Your task to perform on an android device: toggle show notifications on the lock screen Image 0: 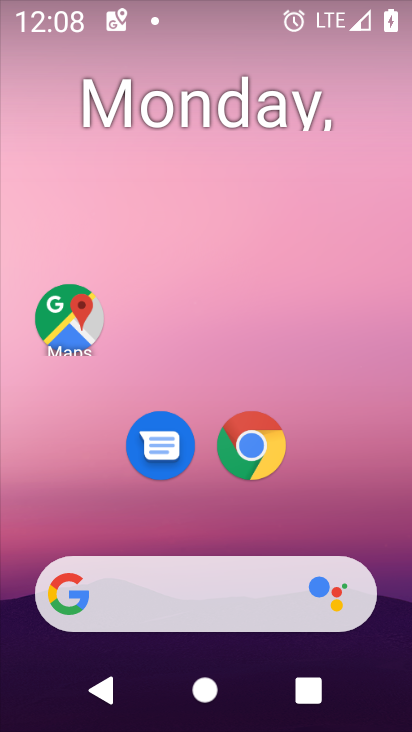
Step 0: drag from (216, 528) to (274, 148)
Your task to perform on an android device: toggle show notifications on the lock screen Image 1: 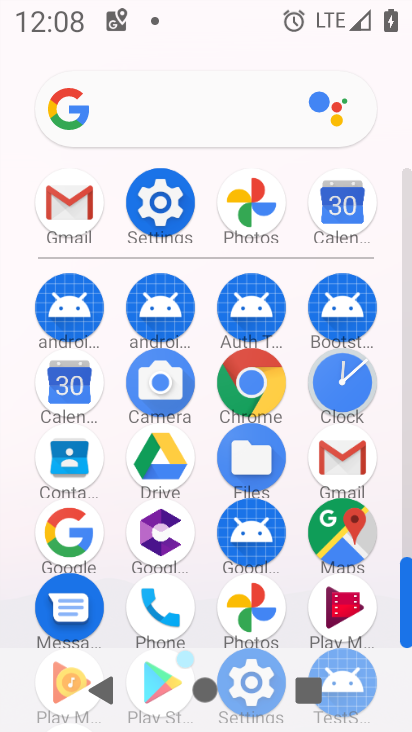
Step 1: click (160, 187)
Your task to perform on an android device: toggle show notifications on the lock screen Image 2: 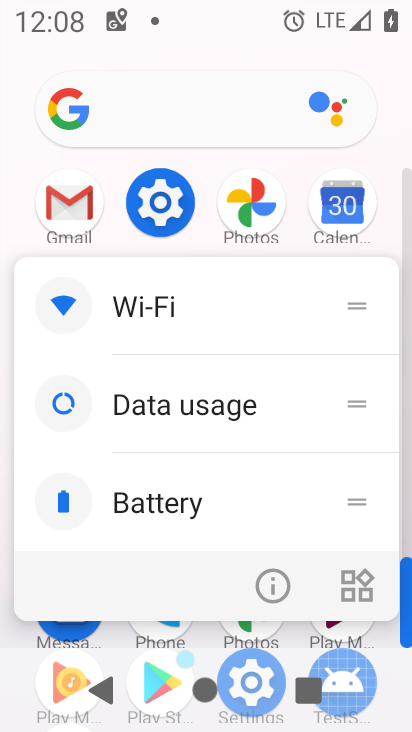
Step 2: click (268, 593)
Your task to perform on an android device: toggle show notifications on the lock screen Image 3: 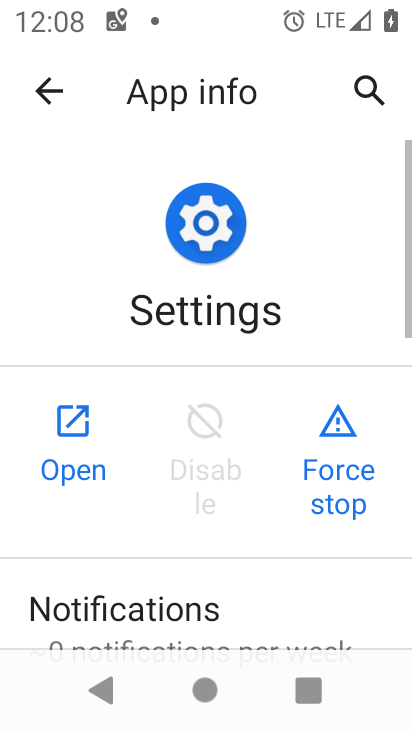
Step 3: click (79, 433)
Your task to perform on an android device: toggle show notifications on the lock screen Image 4: 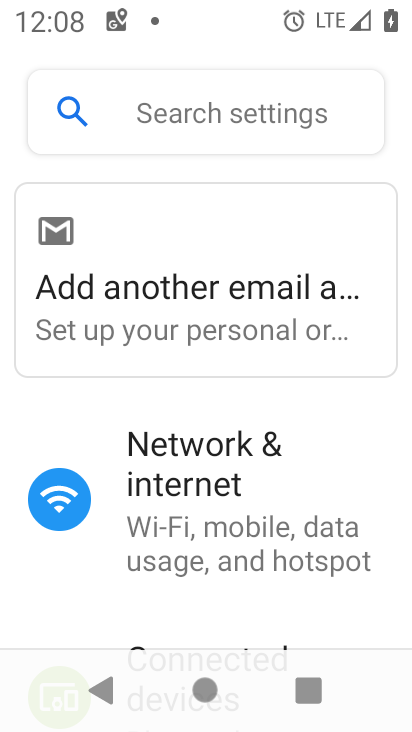
Step 4: drag from (237, 583) to (351, 144)
Your task to perform on an android device: toggle show notifications on the lock screen Image 5: 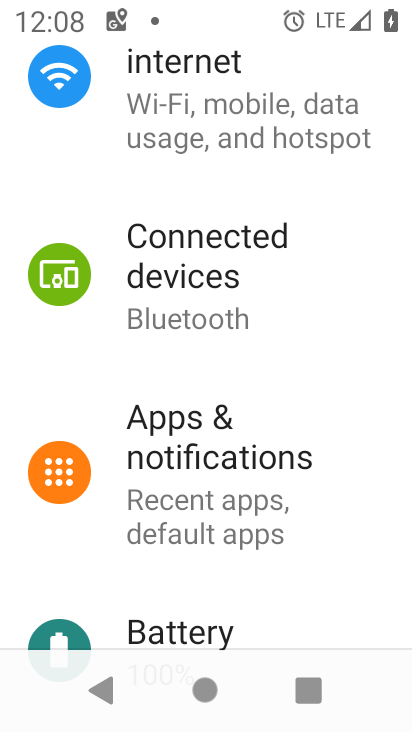
Step 5: click (201, 448)
Your task to perform on an android device: toggle show notifications on the lock screen Image 6: 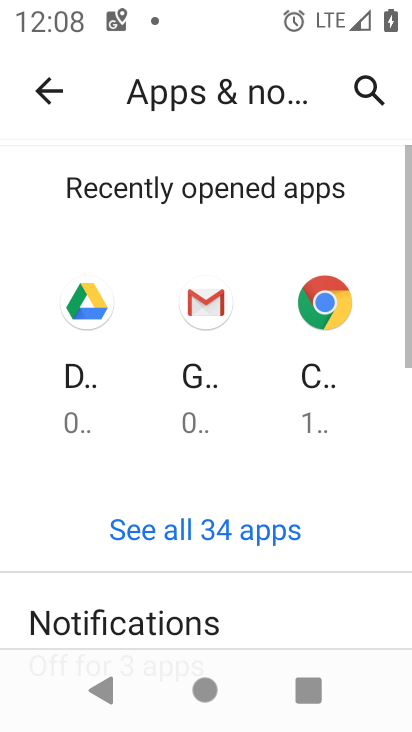
Step 6: drag from (185, 571) to (237, 183)
Your task to perform on an android device: toggle show notifications on the lock screen Image 7: 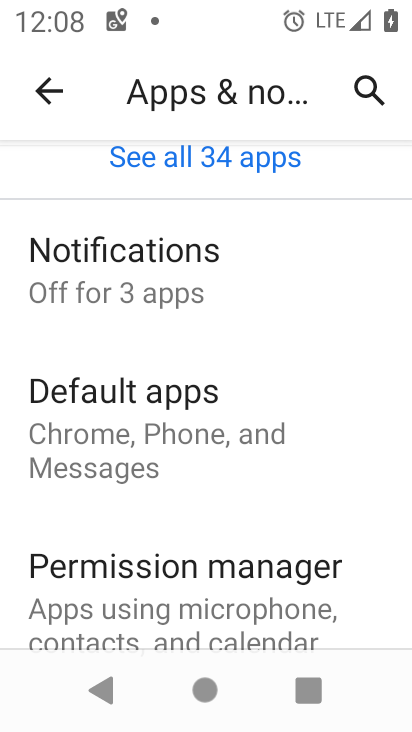
Step 7: click (168, 281)
Your task to perform on an android device: toggle show notifications on the lock screen Image 8: 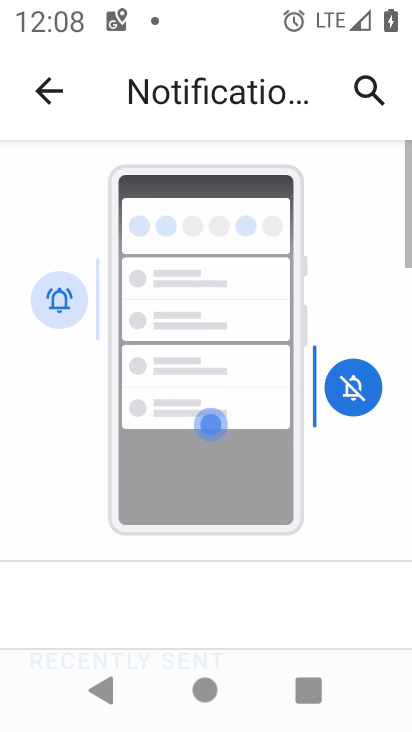
Step 8: drag from (227, 513) to (276, 189)
Your task to perform on an android device: toggle show notifications on the lock screen Image 9: 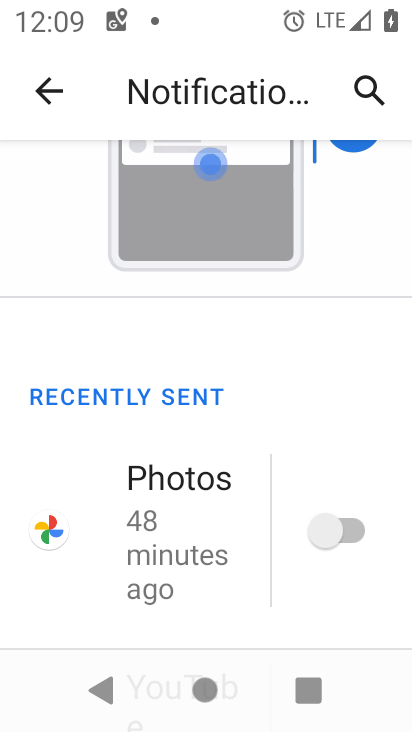
Step 9: drag from (178, 555) to (267, 86)
Your task to perform on an android device: toggle show notifications on the lock screen Image 10: 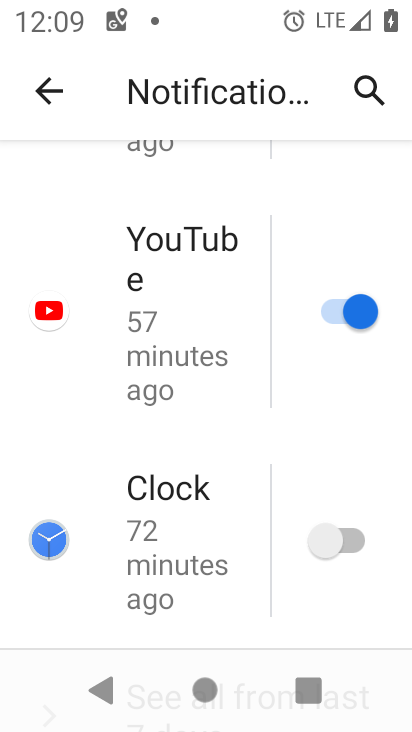
Step 10: drag from (225, 508) to (316, 78)
Your task to perform on an android device: toggle show notifications on the lock screen Image 11: 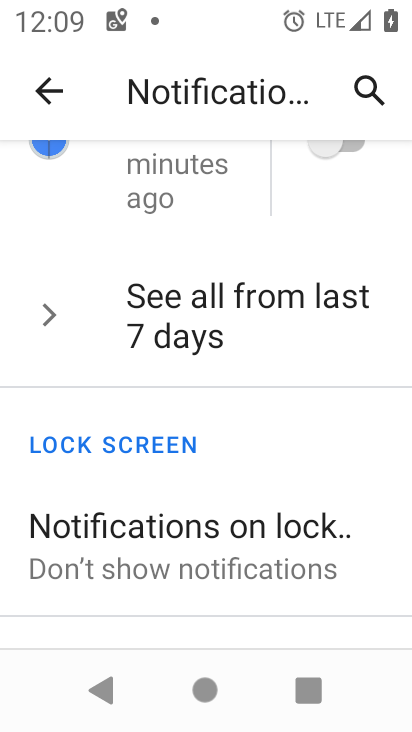
Step 11: drag from (206, 525) to (296, 140)
Your task to perform on an android device: toggle show notifications on the lock screen Image 12: 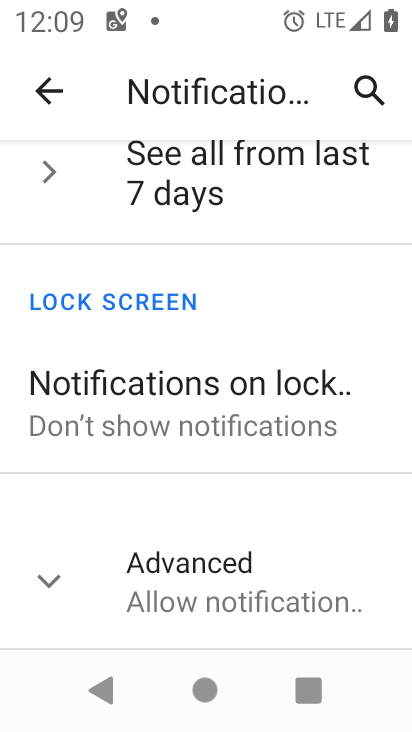
Step 12: click (174, 384)
Your task to perform on an android device: toggle show notifications on the lock screen Image 13: 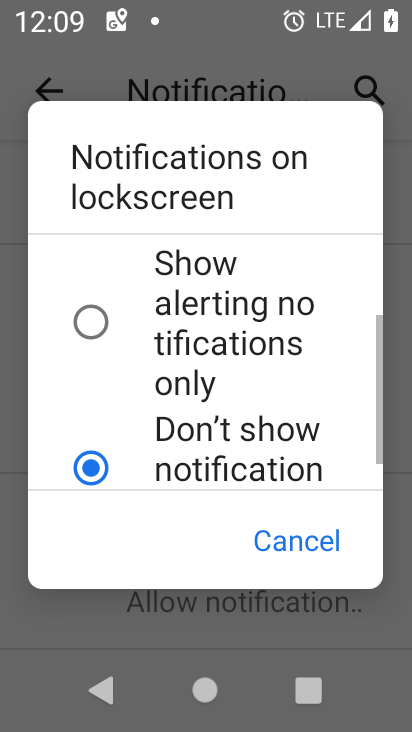
Step 13: click (153, 307)
Your task to perform on an android device: toggle show notifications on the lock screen Image 14: 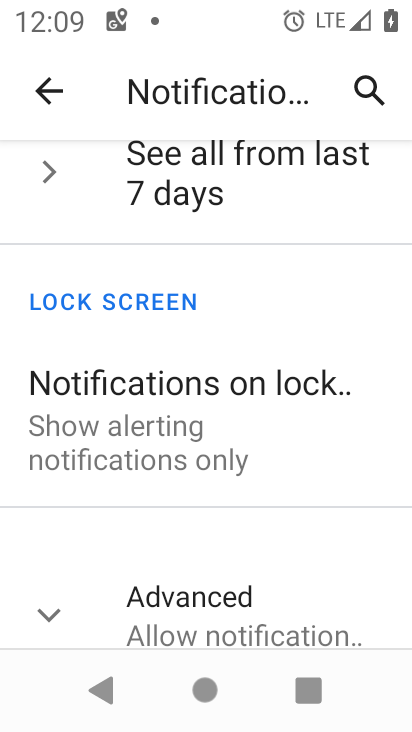
Step 14: task complete